Your task to perform on an android device: uninstall "PUBG MOBILE" Image 0: 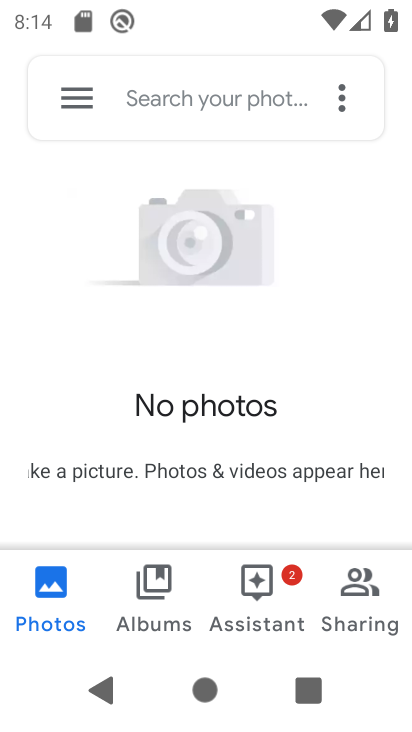
Step 0: press home button
Your task to perform on an android device: uninstall "PUBG MOBILE" Image 1: 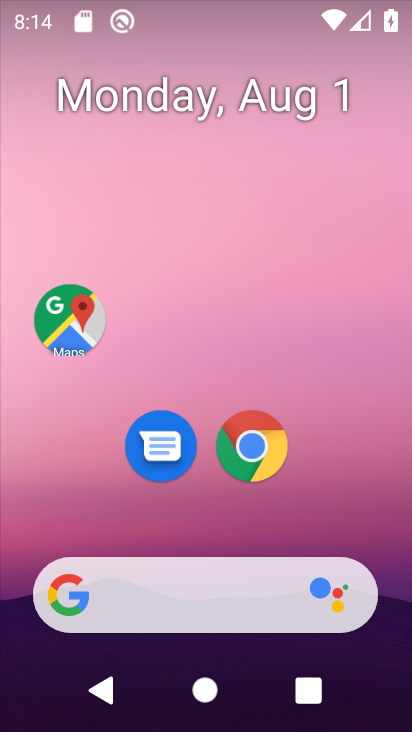
Step 1: drag from (209, 533) to (210, 105)
Your task to perform on an android device: uninstall "PUBG MOBILE" Image 2: 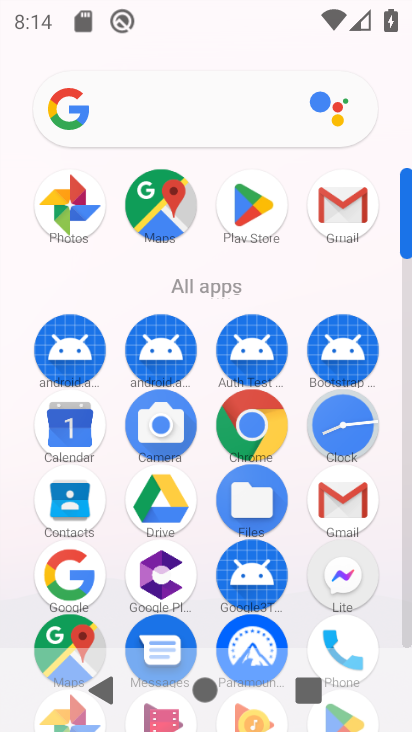
Step 2: click (243, 226)
Your task to perform on an android device: uninstall "PUBG MOBILE" Image 3: 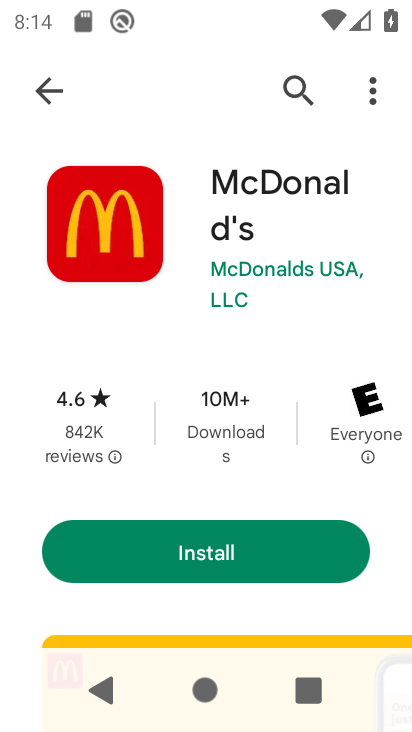
Step 3: click (302, 83)
Your task to perform on an android device: uninstall "PUBG MOBILE" Image 4: 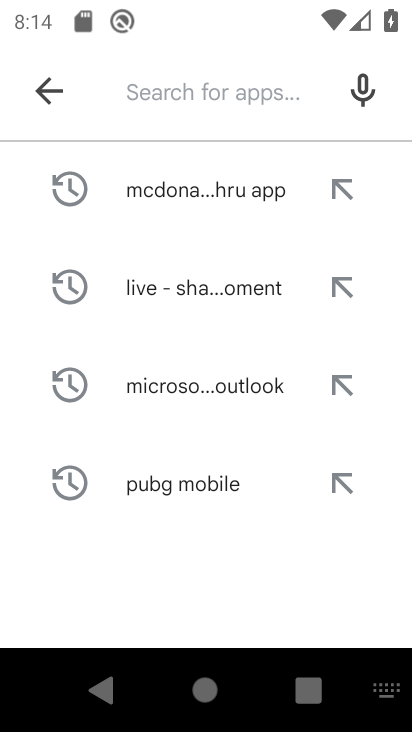
Step 4: type "PUBG MOBILE"
Your task to perform on an android device: uninstall "PUBG MOBILE" Image 5: 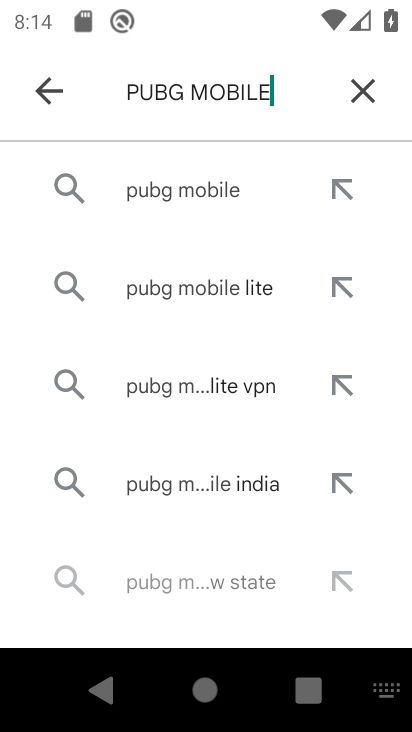
Step 5: type ""
Your task to perform on an android device: uninstall "PUBG MOBILE" Image 6: 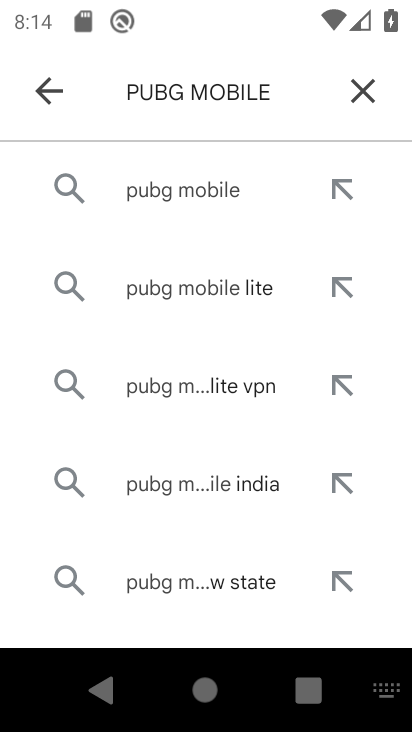
Step 6: click (210, 179)
Your task to perform on an android device: uninstall "PUBG MOBILE" Image 7: 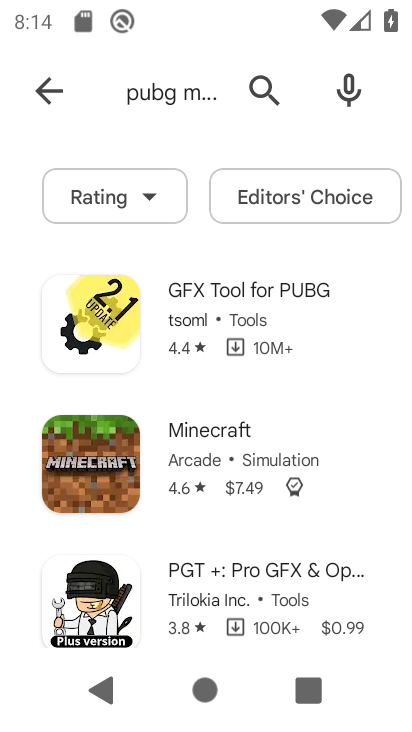
Step 7: task complete